Your task to perform on an android device: turn on sleep mode Image 0: 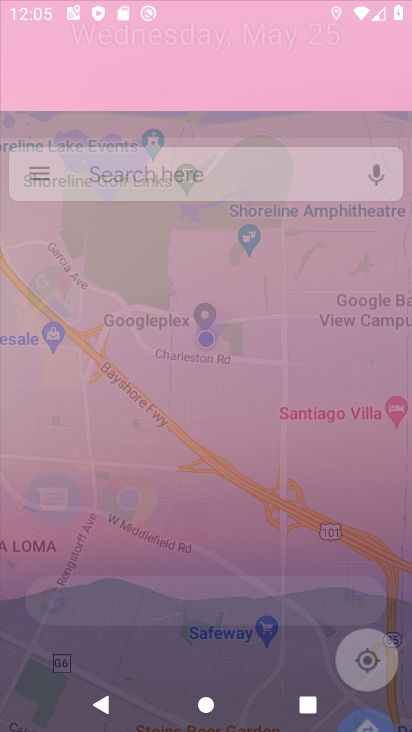
Step 0: click (58, 324)
Your task to perform on an android device: turn on sleep mode Image 1: 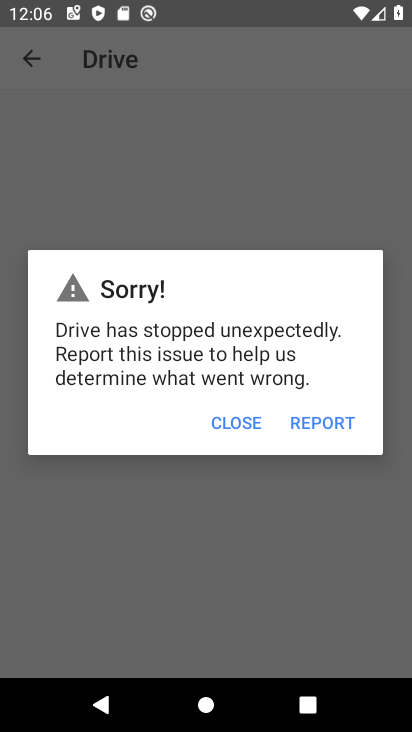
Step 1: press home button
Your task to perform on an android device: turn on sleep mode Image 2: 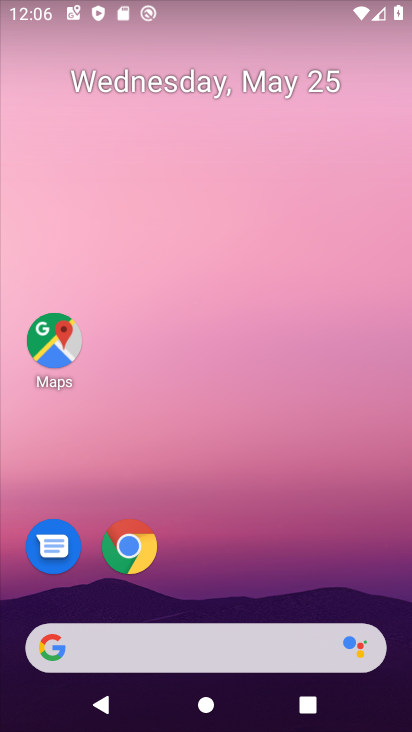
Step 2: drag from (212, 606) to (162, 168)
Your task to perform on an android device: turn on sleep mode Image 3: 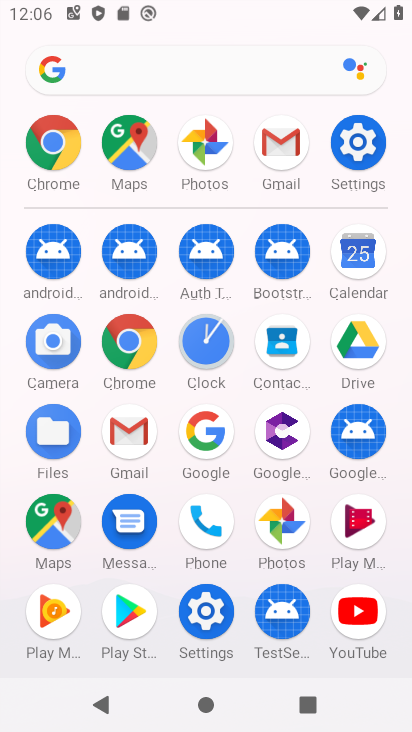
Step 3: click (372, 138)
Your task to perform on an android device: turn on sleep mode Image 4: 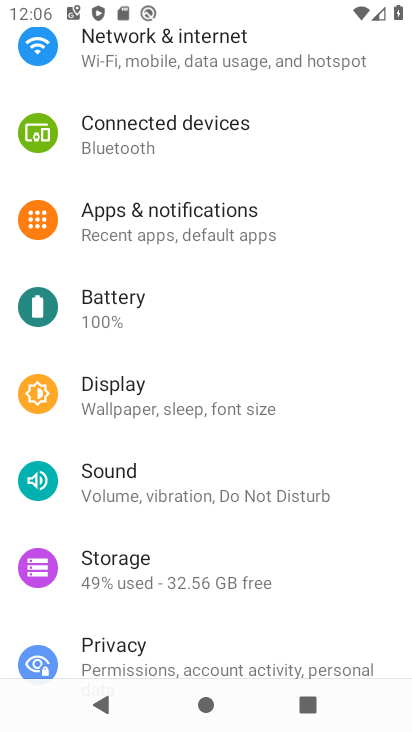
Step 4: click (216, 413)
Your task to perform on an android device: turn on sleep mode Image 5: 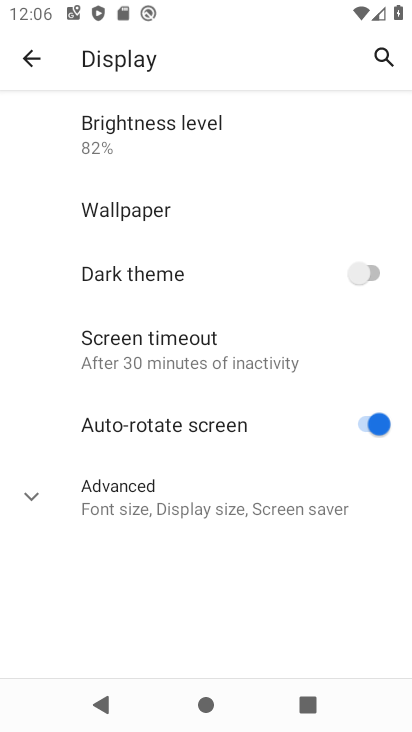
Step 5: click (196, 506)
Your task to perform on an android device: turn on sleep mode Image 6: 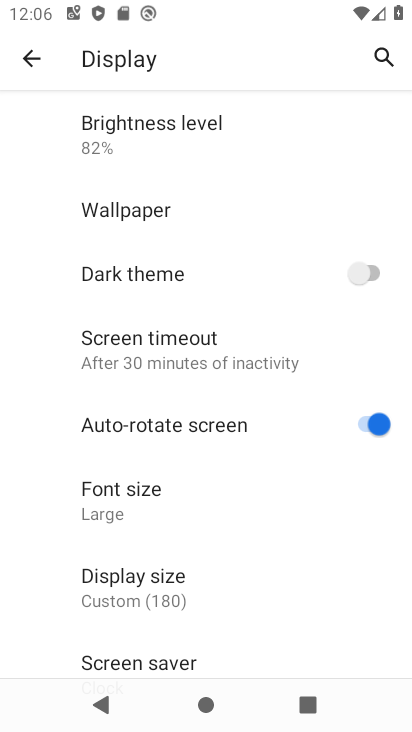
Step 6: task complete